Your task to perform on an android device: Open Google Maps Image 0: 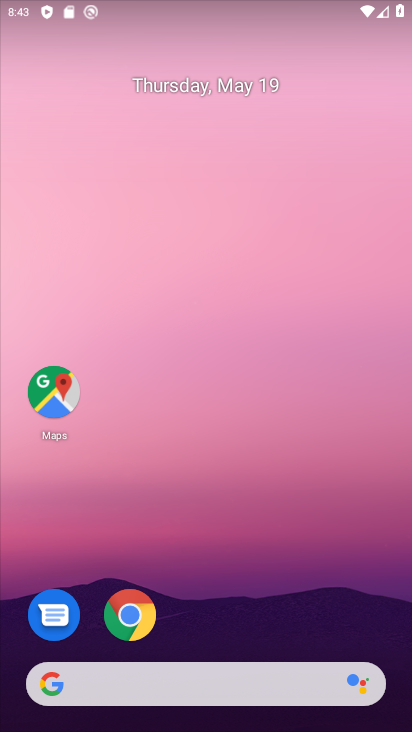
Step 0: press home button
Your task to perform on an android device: Open Google Maps Image 1: 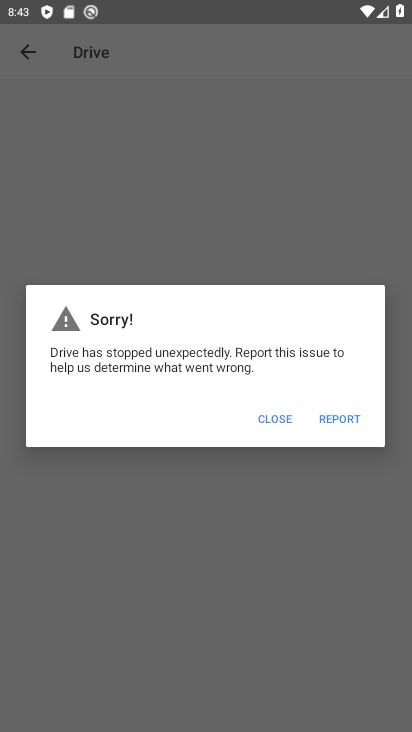
Step 1: drag from (335, 309) to (359, 206)
Your task to perform on an android device: Open Google Maps Image 2: 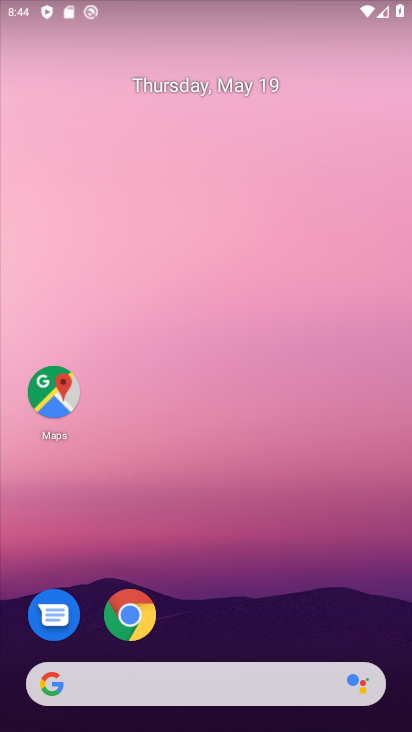
Step 2: click (48, 399)
Your task to perform on an android device: Open Google Maps Image 3: 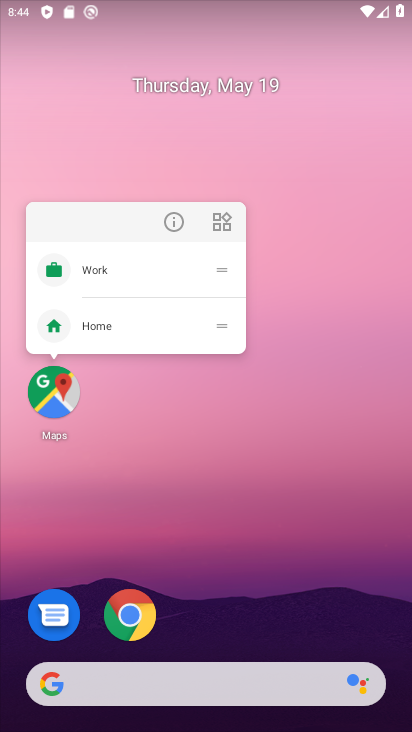
Step 3: click (48, 399)
Your task to perform on an android device: Open Google Maps Image 4: 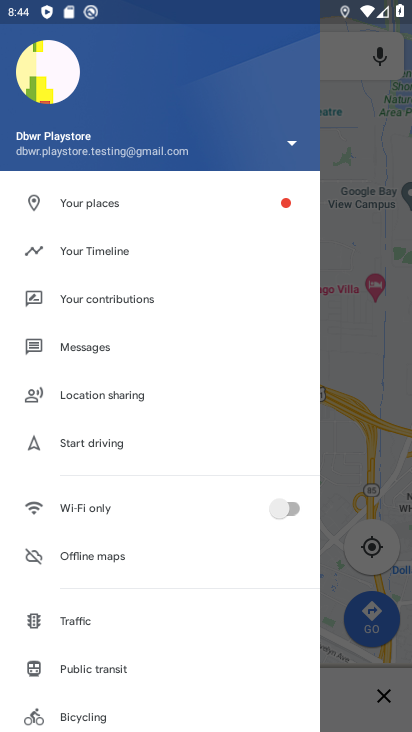
Step 4: task complete